Your task to perform on an android device: turn pop-ups on in chrome Image 0: 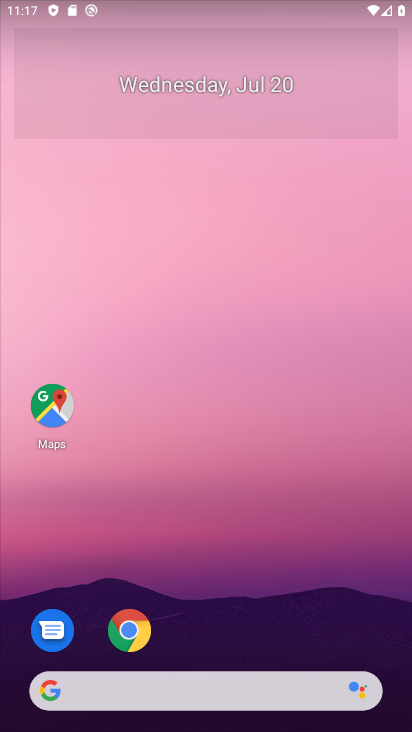
Step 0: click (139, 626)
Your task to perform on an android device: turn pop-ups on in chrome Image 1: 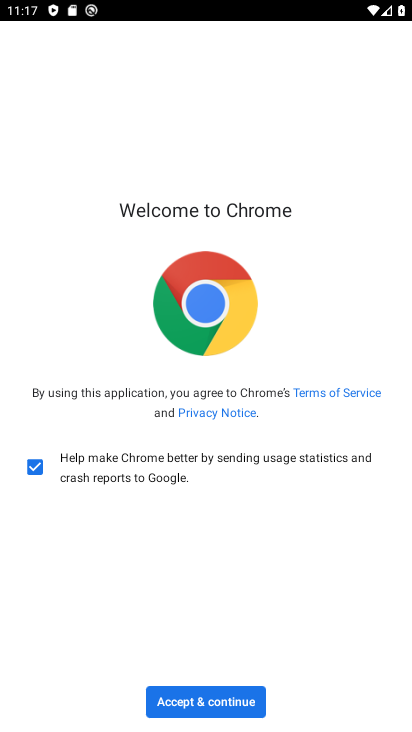
Step 1: click (199, 703)
Your task to perform on an android device: turn pop-ups on in chrome Image 2: 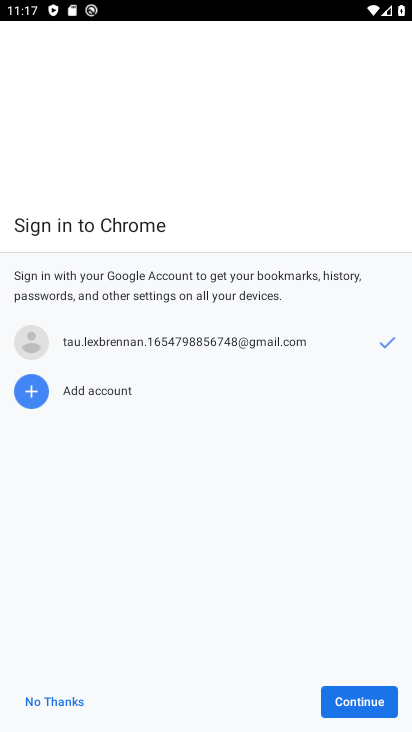
Step 2: click (335, 704)
Your task to perform on an android device: turn pop-ups on in chrome Image 3: 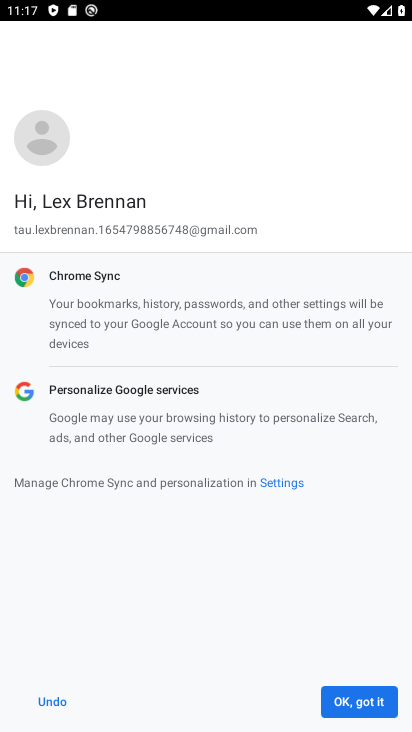
Step 3: click (357, 693)
Your task to perform on an android device: turn pop-ups on in chrome Image 4: 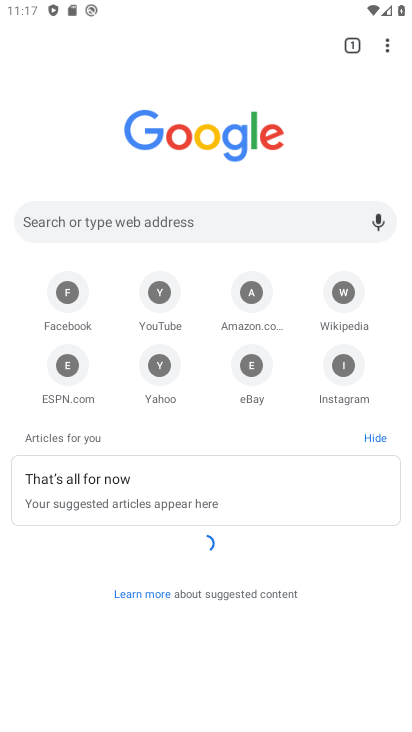
Step 4: click (390, 47)
Your task to perform on an android device: turn pop-ups on in chrome Image 5: 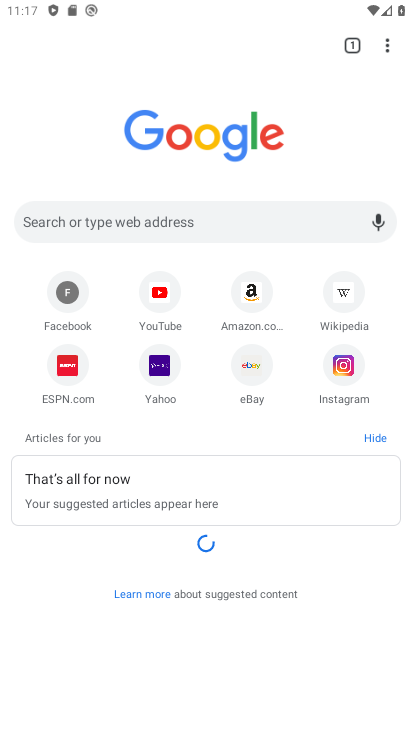
Step 5: click (388, 42)
Your task to perform on an android device: turn pop-ups on in chrome Image 6: 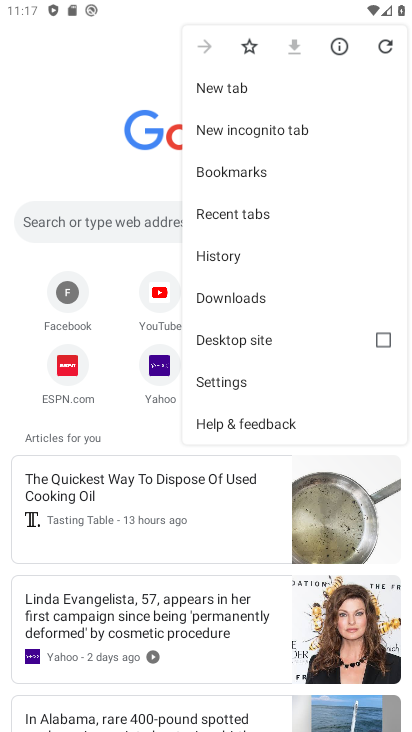
Step 6: click (226, 382)
Your task to perform on an android device: turn pop-ups on in chrome Image 7: 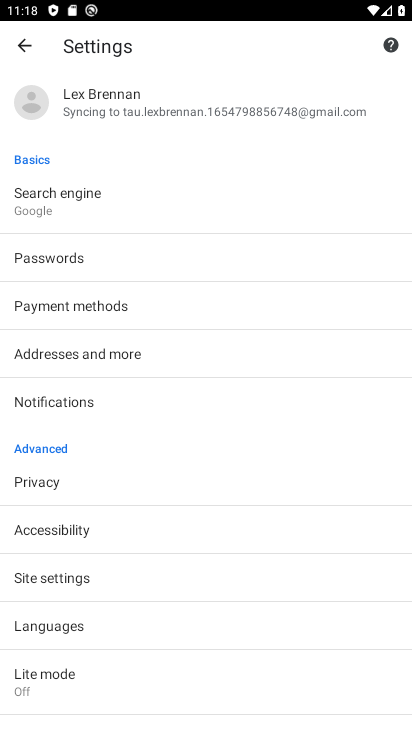
Step 7: click (63, 579)
Your task to perform on an android device: turn pop-ups on in chrome Image 8: 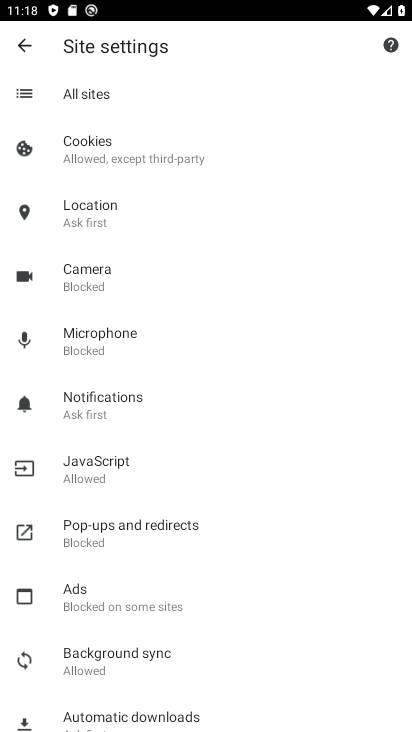
Step 8: click (99, 503)
Your task to perform on an android device: turn pop-ups on in chrome Image 9: 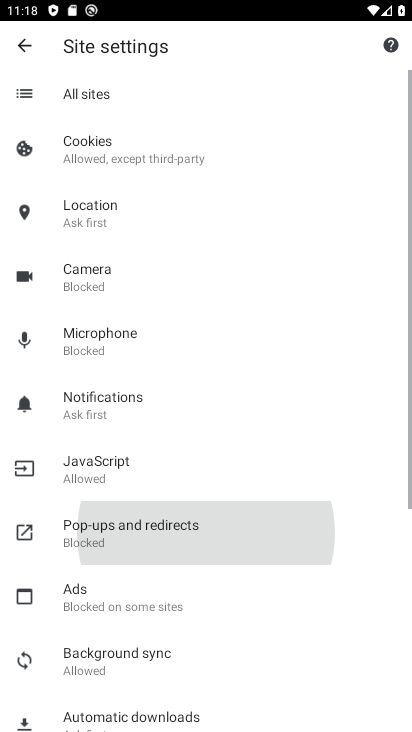
Step 9: click (101, 522)
Your task to perform on an android device: turn pop-ups on in chrome Image 10: 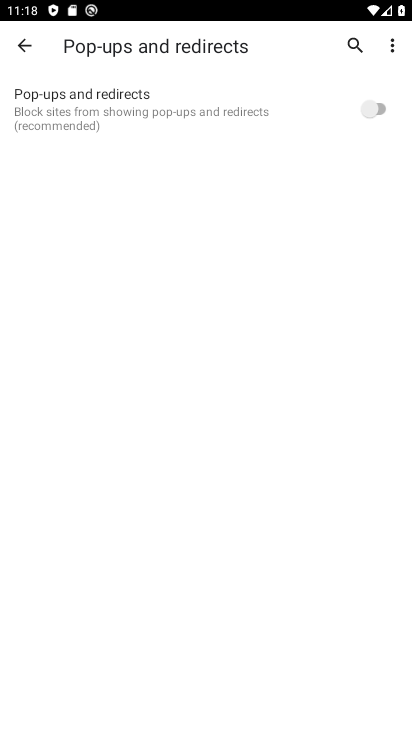
Step 10: click (370, 108)
Your task to perform on an android device: turn pop-ups on in chrome Image 11: 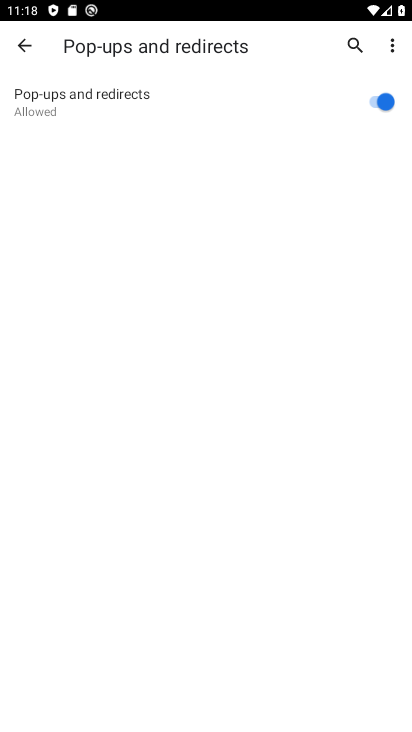
Step 11: task complete